Your task to perform on an android device: check out phone information Image 0: 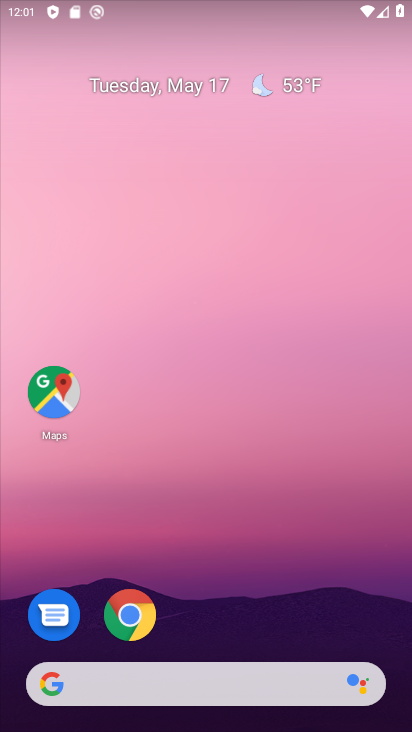
Step 0: drag from (343, 627) to (271, 4)
Your task to perform on an android device: check out phone information Image 1: 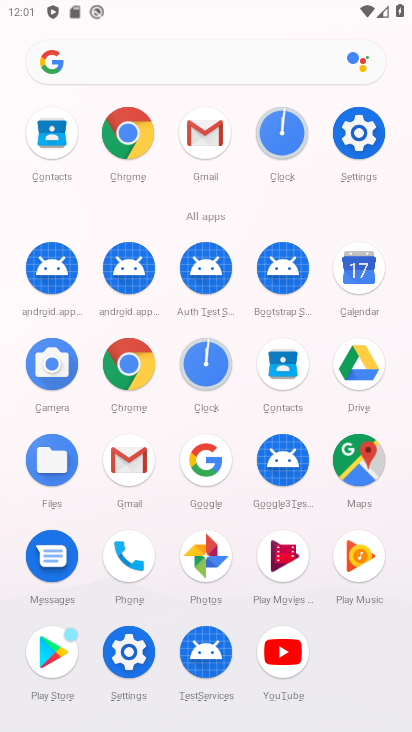
Step 1: click (114, 641)
Your task to perform on an android device: check out phone information Image 2: 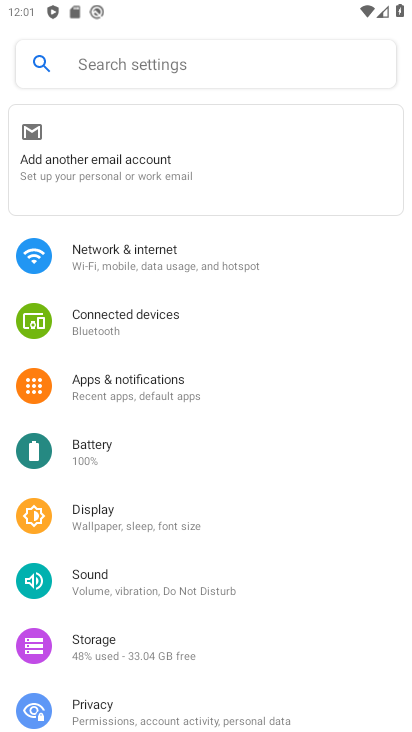
Step 2: drag from (240, 623) to (323, 197)
Your task to perform on an android device: check out phone information Image 3: 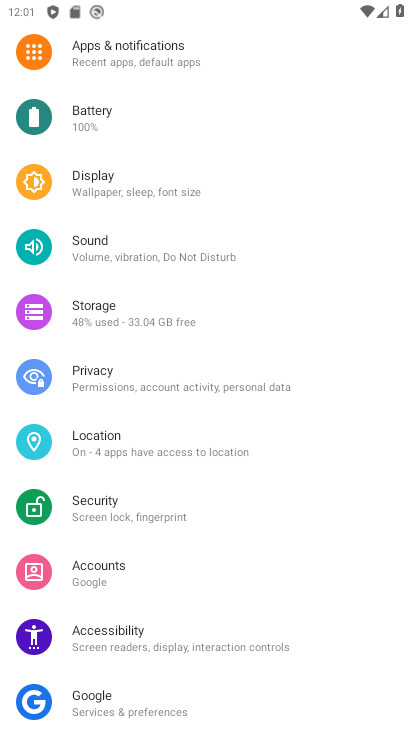
Step 3: drag from (166, 634) to (263, 327)
Your task to perform on an android device: check out phone information Image 4: 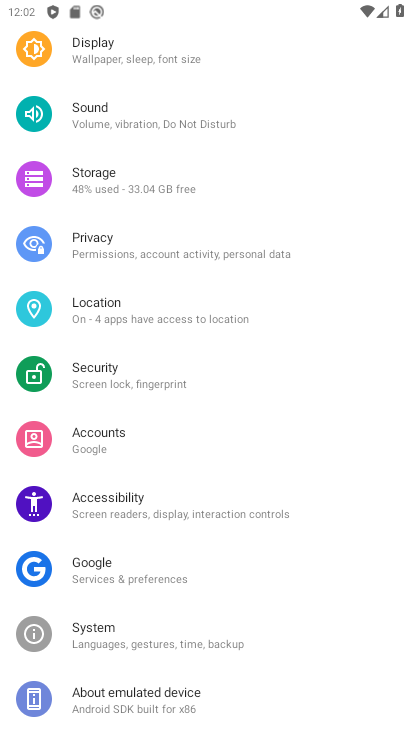
Step 4: drag from (177, 694) to (252, 321)
Your task to perform on an android device: check out phone information Image 5: 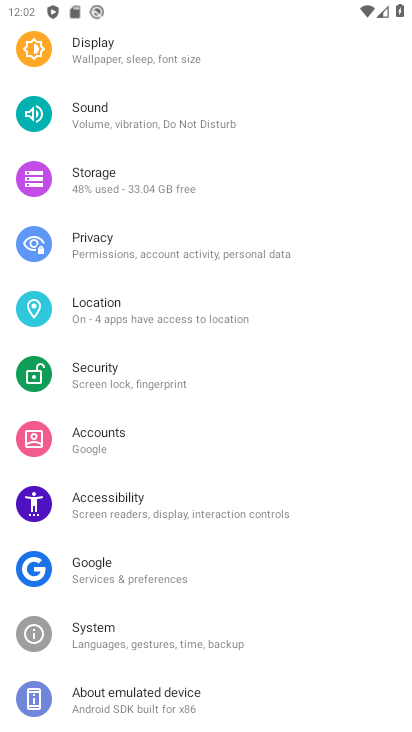
Step 5: click (203, 687)
Your task to perform on an android device: check out phone information Image 6: 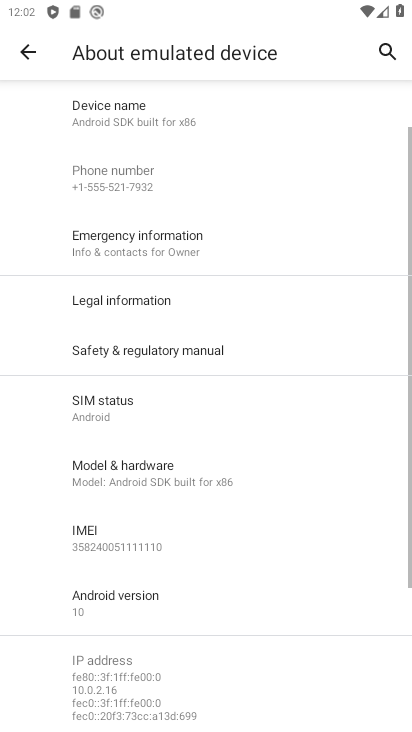
Step 6: task complete